Your task to perform on an android device: turn on airplane mode Image 0: 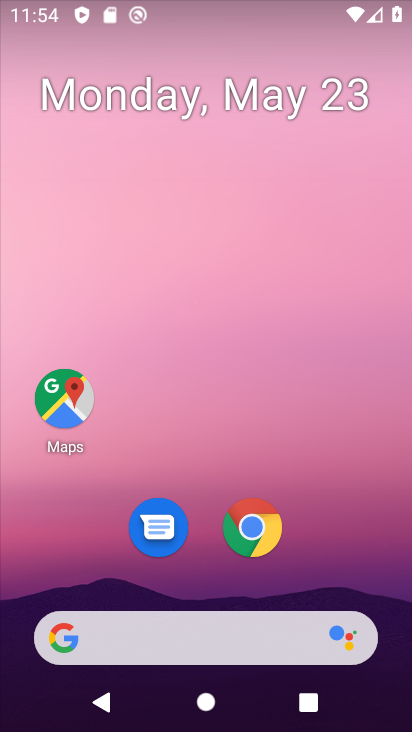
Step 0: drag from (204, 261) to (207, 211)
Your task to perform on an android device: turn on airplane mode Image 1: 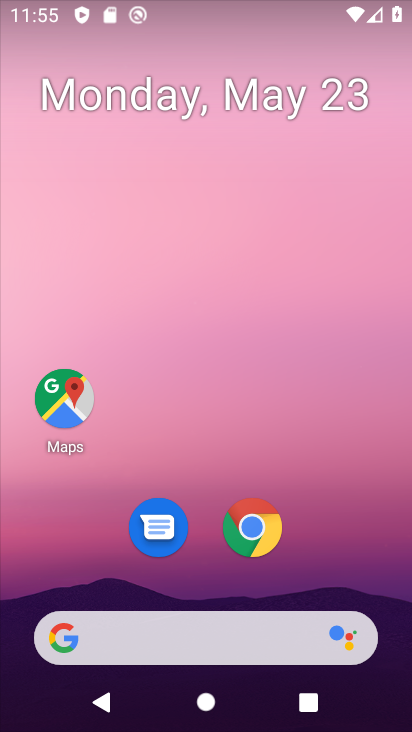
Step 1: drag from (148, 635) to (259, 168)
Your task to perform on an android device: turn on airplane mode Image 2: 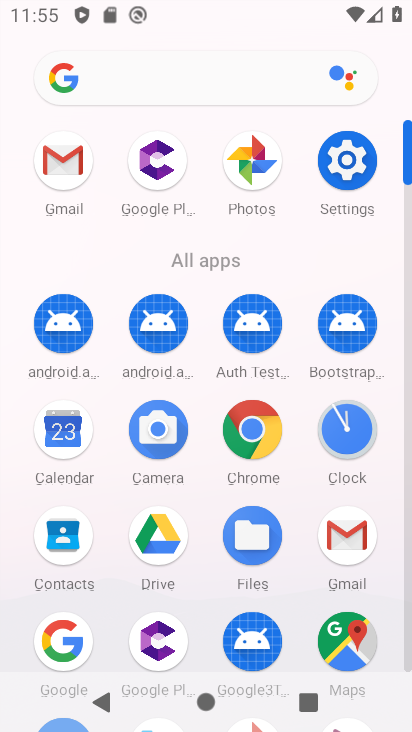
Step 2: click (349, 158)
Your task to perform on an android device: turn on airplane mode Image 3: 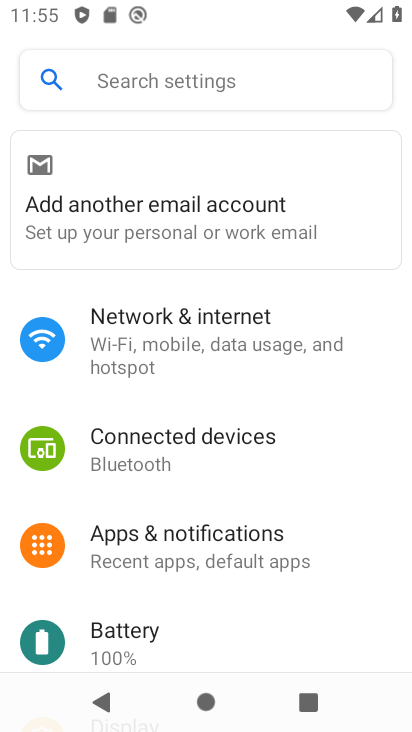
Step 3: click (217, 332)
Your task to perform on an android device: turn on airplane mode Image 4: 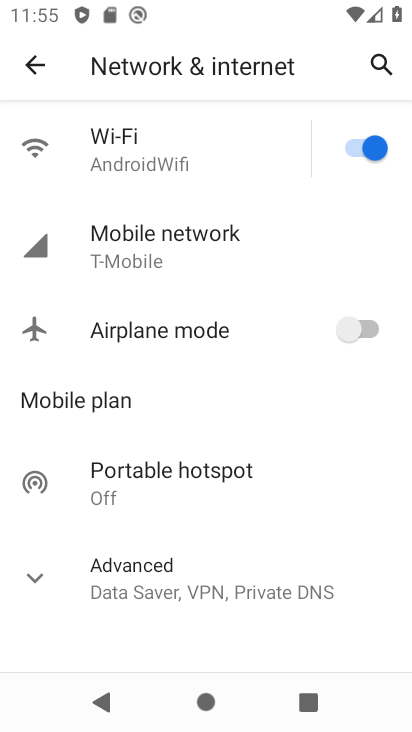
Step 4: click (369, 327)
Your task to perform on an android device: turn on airplane mode Image 5: 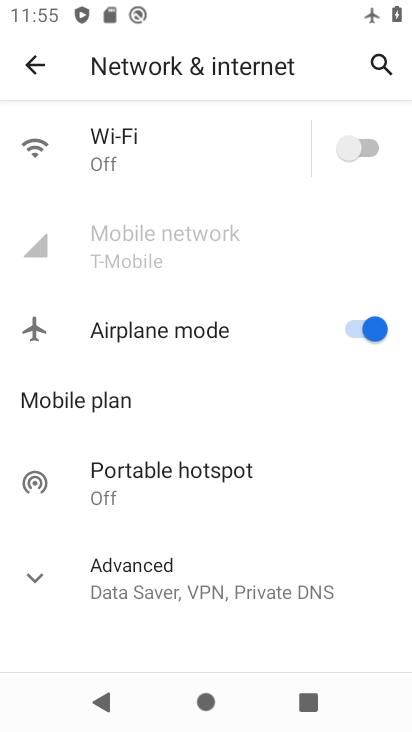
Step 5: task complete